Your task to perform on an android device: Check the news Image 0: 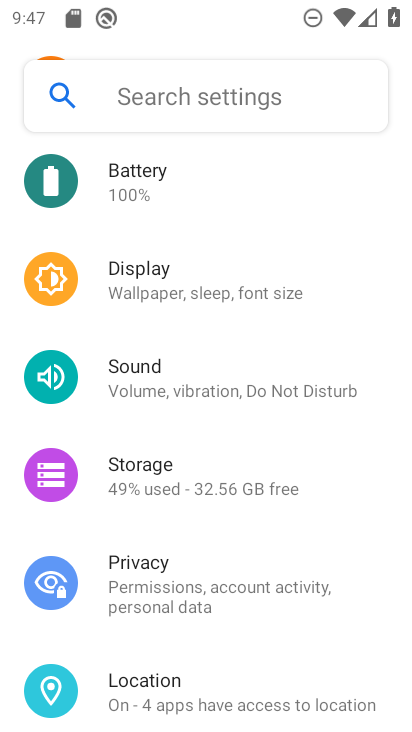
Step 0: press home button
Your task to perform on an android device: Check the news Image 1: 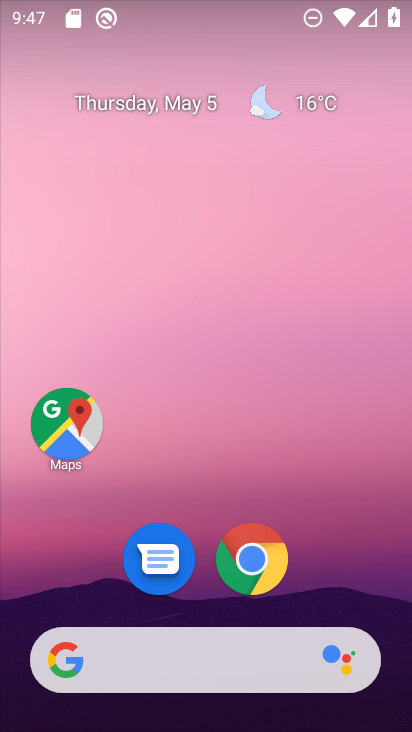
Step 1: task complete